Your task to perform on an android device: turn notification dots off Image 0: 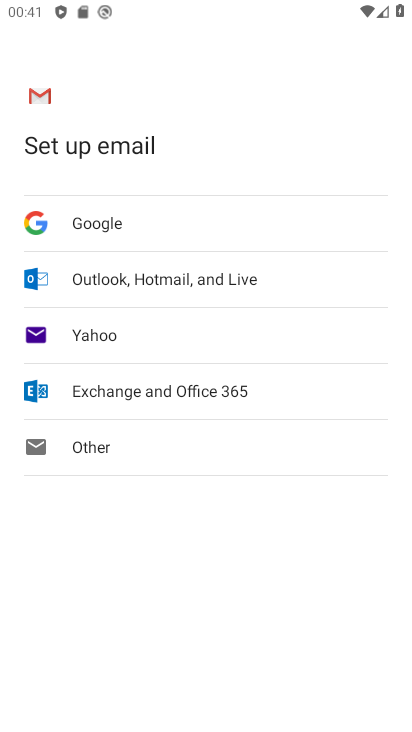
Step 0: press home button
Your task to perform on an android device: turn notification dots off Image 1: 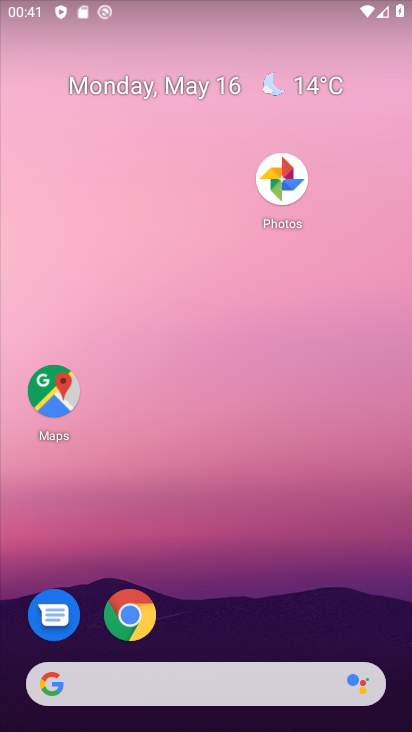
Step 1: drag from (314, 609) to (271, 190)
Your task to perform on an android device: turn notification dots off Image 2: 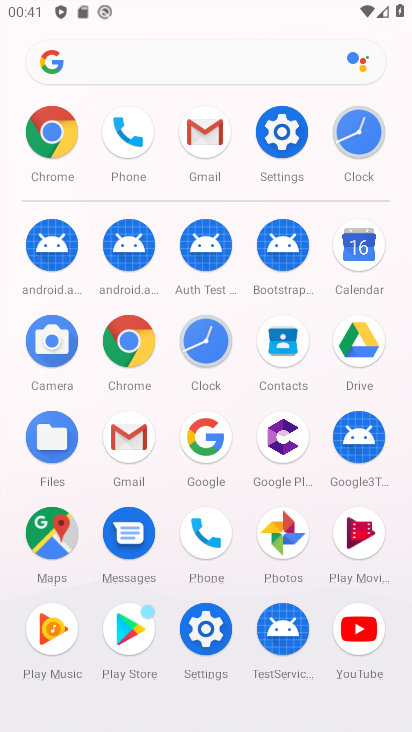
Step 2: click (261, 143)
Your task to perform on an android device: turn notification dots off Image 3: 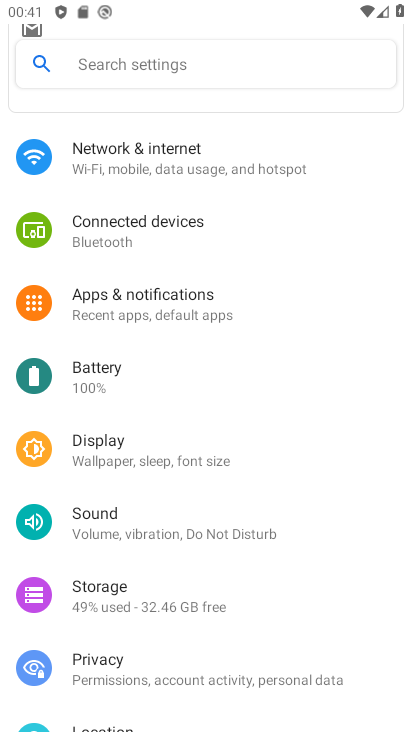
Step 3: click (180, 302)
Your task to perform on an android device: turn notification dots off Image 4: 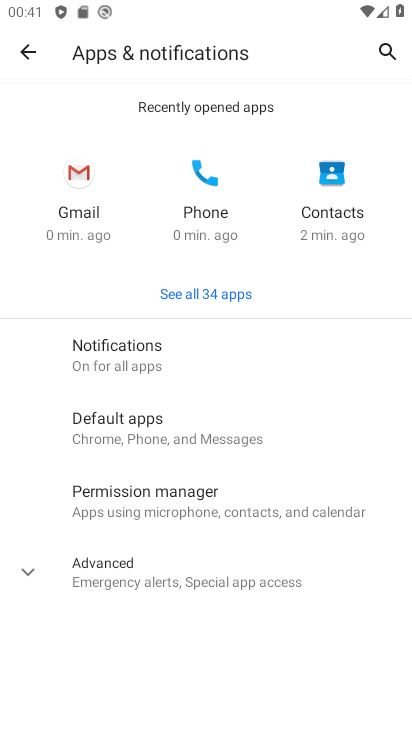
Step 4: click (164, 358)
Your task to perform on an android device: turn notification dots off Image 5: 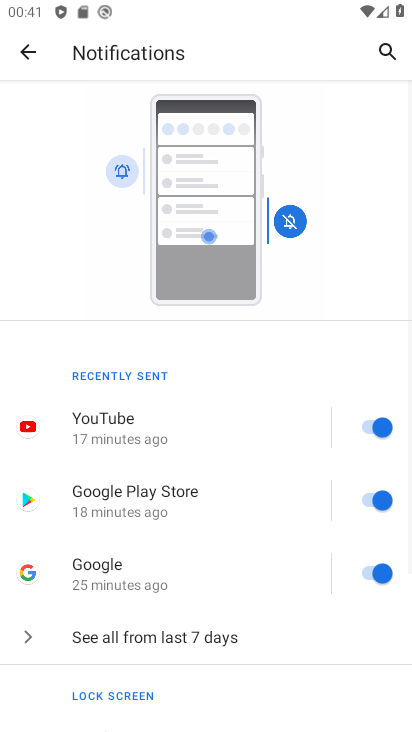
Step 5: drag from (276, 646) to (245, 309)
Your task to perform on an android device: turn notification dots off Image 6: 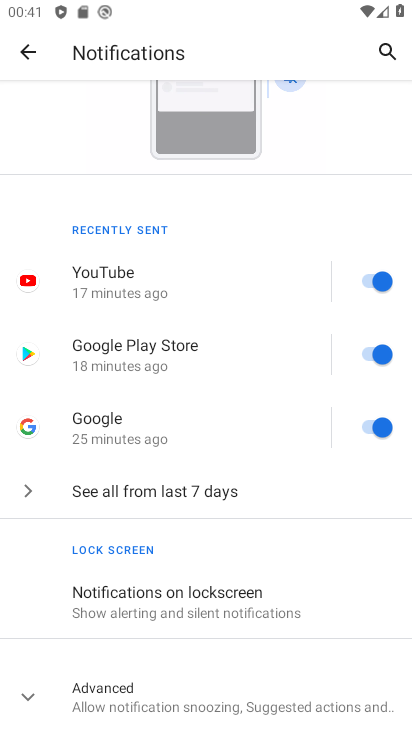
Step 6: click (151, 706)
Your task to perform on an android device: turn notification dots off Image 7: 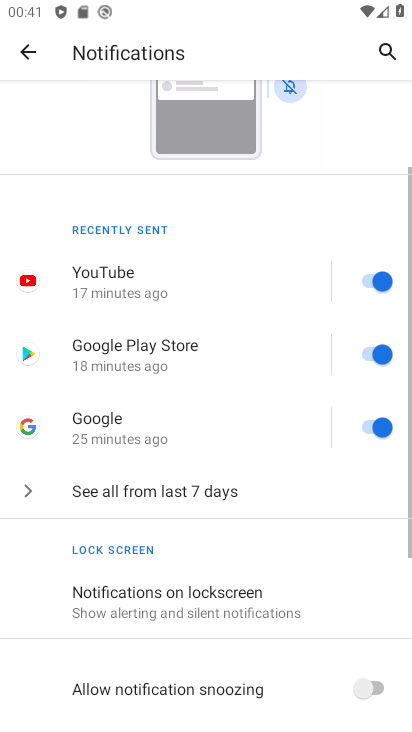
Step 7: drag from (326, 715) to (304, 367)
Your task to perform on an android device: turn notification dots off Image 8: 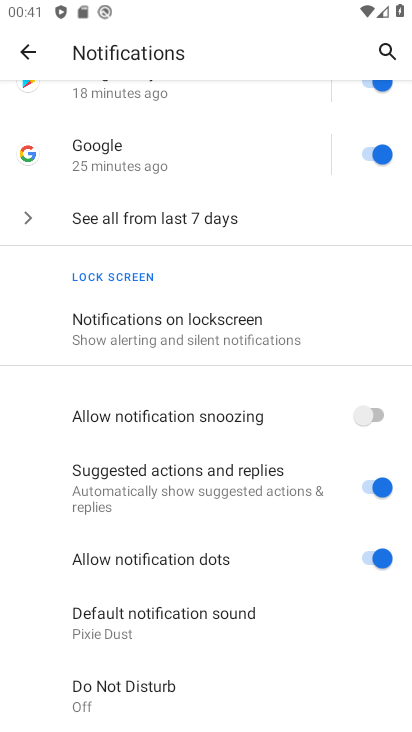
Step 8: click (367, 562)
Your task to perform on an android device: turn notification dots off Image 9: 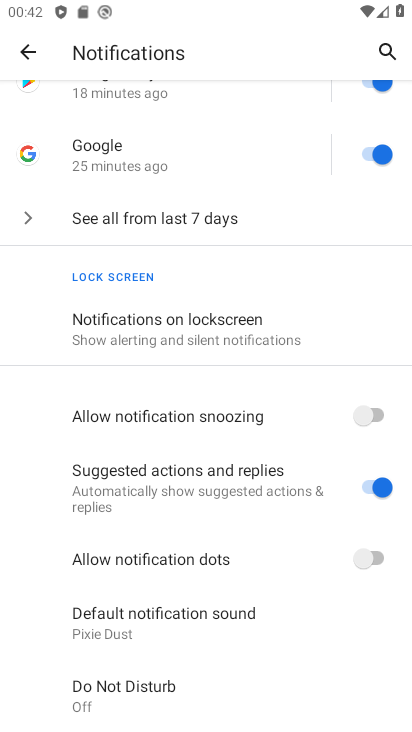
Step 9: task complete